Your task to perform on an android device: search for starred emails in the gmail app Image 0: 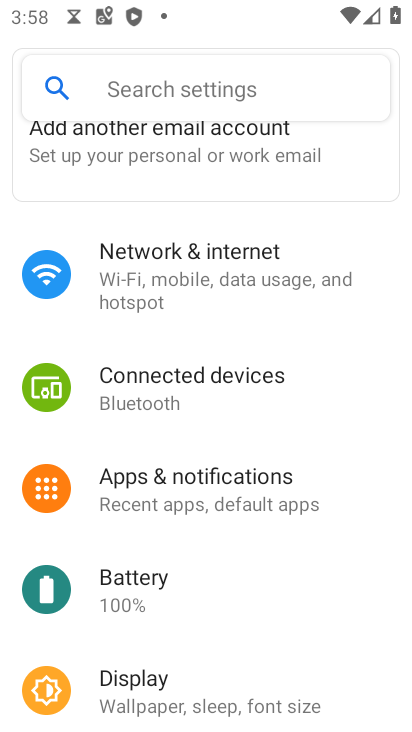
Step 0: press home button
Your task to perform on an android device: search for starred emails in the gmail app Image 1: 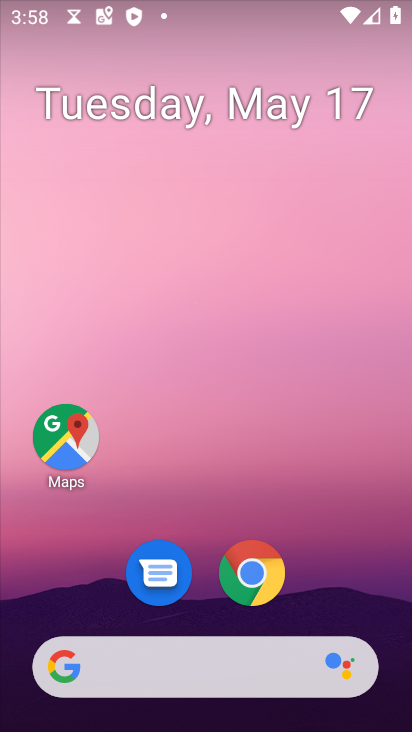
Step 1: drag from (381, 615) to (314, 270)
Your task to perform on an android device: search for starred emails in the gmail app Image 2: 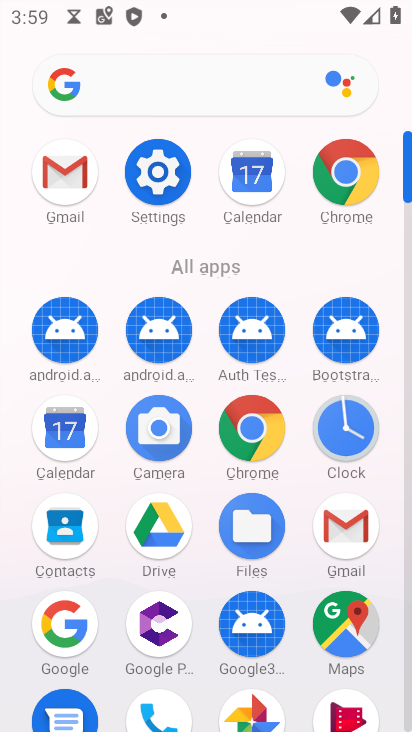
Step 2: click (85, 192)
Your task to perform on an android device: search for starred emails in the gmail app Image 3: 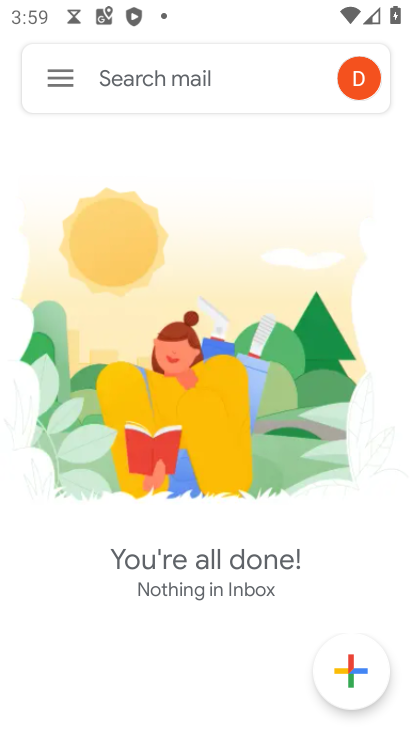
Step 3: click (56, 86)
Your task to perform on an android device: search for starred emails in the gmail app Image 4: 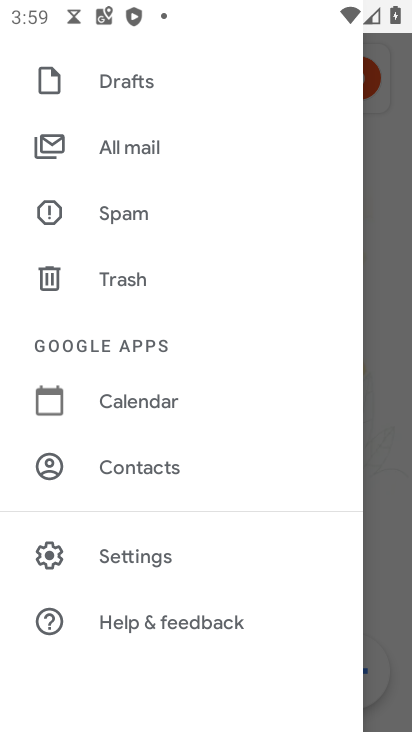
Step 4: drag from (211, 182) to (157, 616)
Your task to perform on an android device: search for starred emails in the gmail app Image 5: 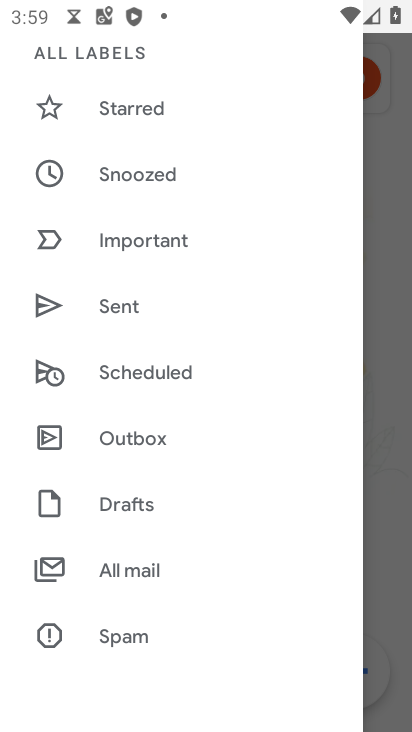
Step 5: drag from (157, 250) to (145, 441)
Your task to perform on an android device: search for starred emails in the gmail app Image 6: 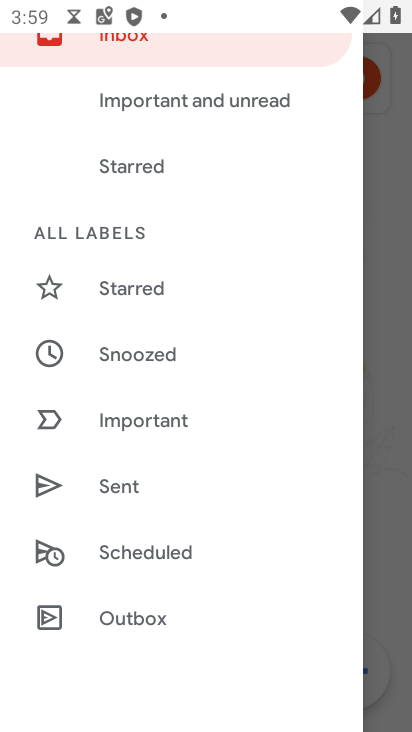
Step 6: click (150, 289)
Your task to perform on an android device: search for starred emails in the gmail app Image 7: 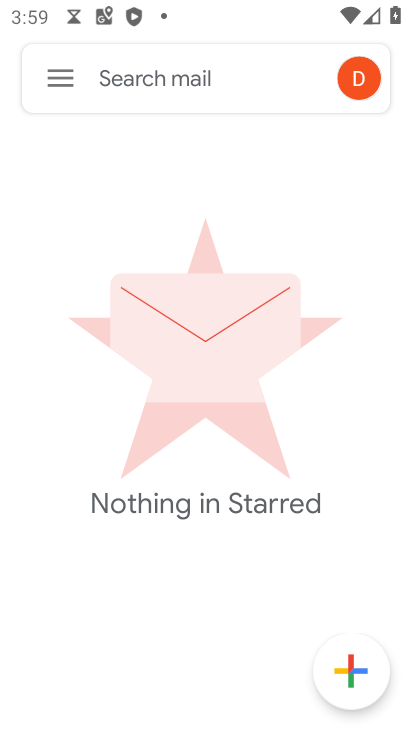
Step 7: task complete